Your task to perform on an android device: What's the weather today? Image 0: 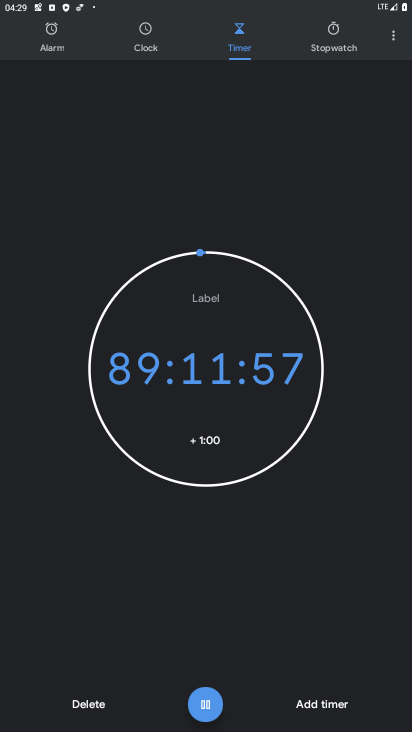
Step 0: press home button
Your task to perform on an android device: What's the weather today? Image 1: 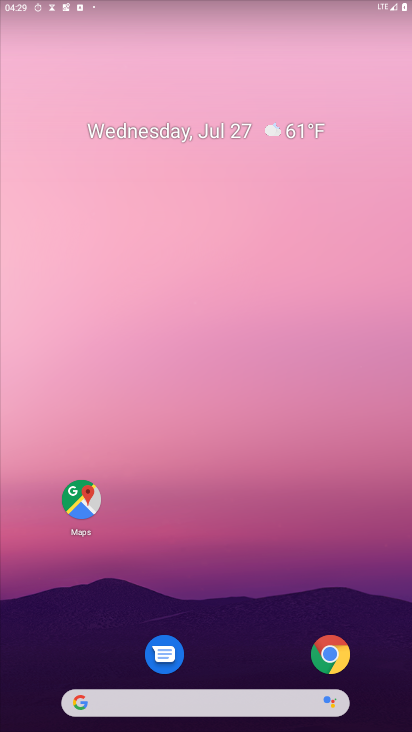
Step 1: drag from (277, 664) to (349, 15)
Your task to perform on an android device: What's the weather today? Image 2: 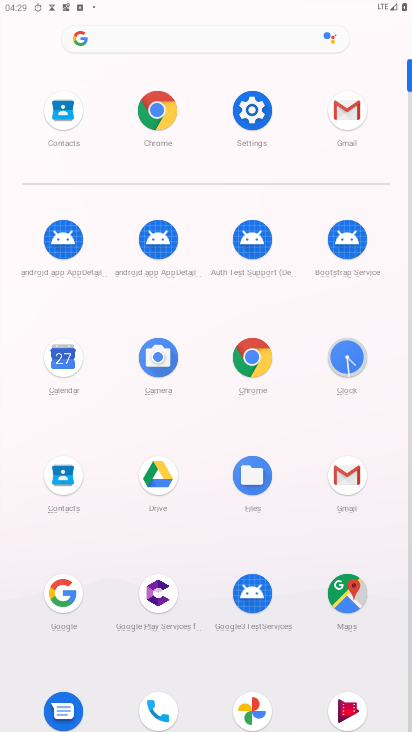
Step 2: click (243, 354)
Your task to perform on an android device: What's the weather today? Image 3: 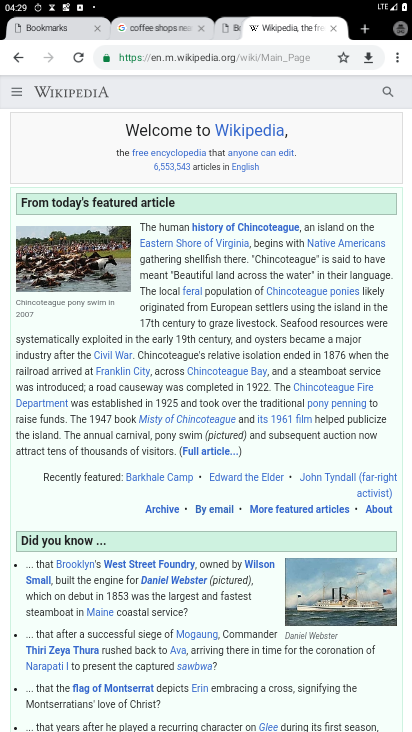
Step 3: click (131, 47)
Your task to perform on an android device: What's the weather today? Image 4: 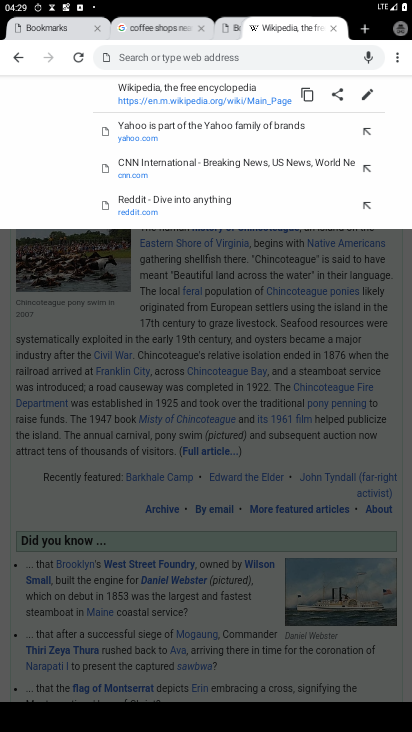
Step 4: type "weather today"
Your task to perform on an android device: What's the weather today? Image 5: 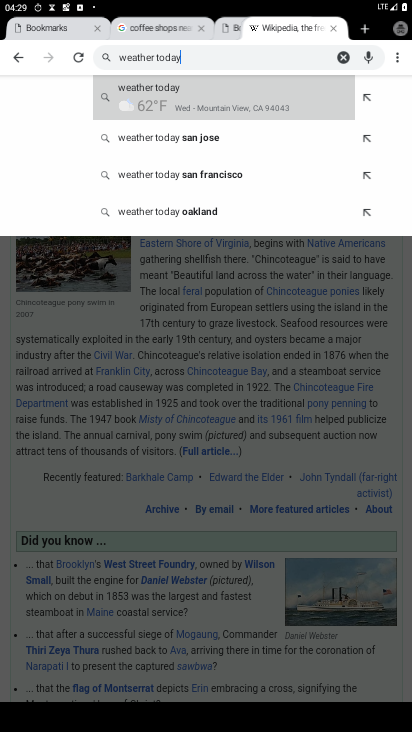
Step 5: click (306, 95)
Your task to perform on an android device: What's the weather today? Image 6: 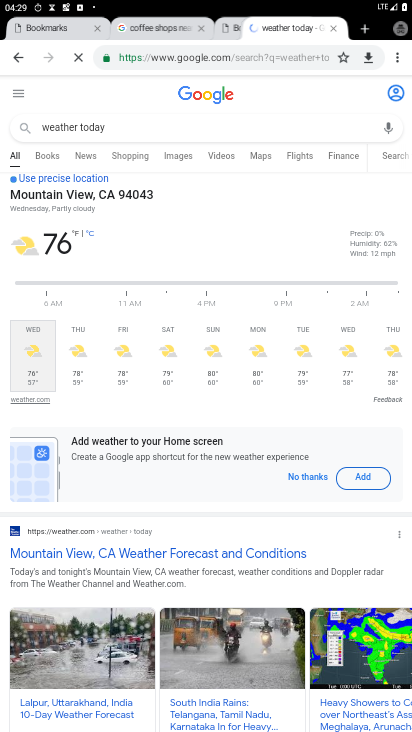
Step 6: task complete